Your task to perform on an android device: Go to display settings Image 0: 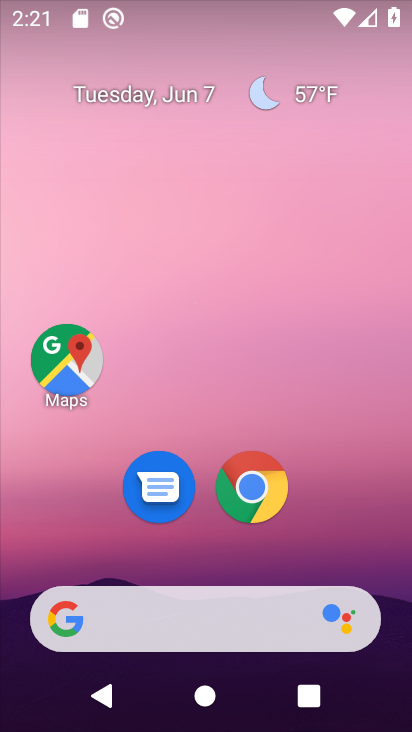
Step 0: drag from (253, 595) to (313, 346)
Your task to perform on an android device: Go to display settings Image 1: 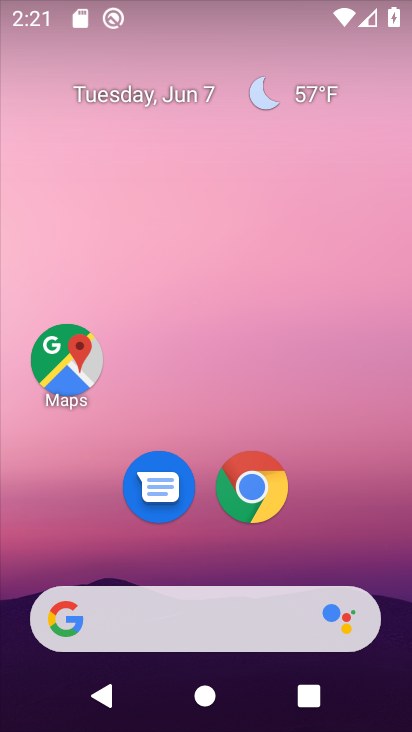
Step 1: drag from (231, 570) to (265, 17)
Your task to perform on an android device: Go to display settings Image 2: 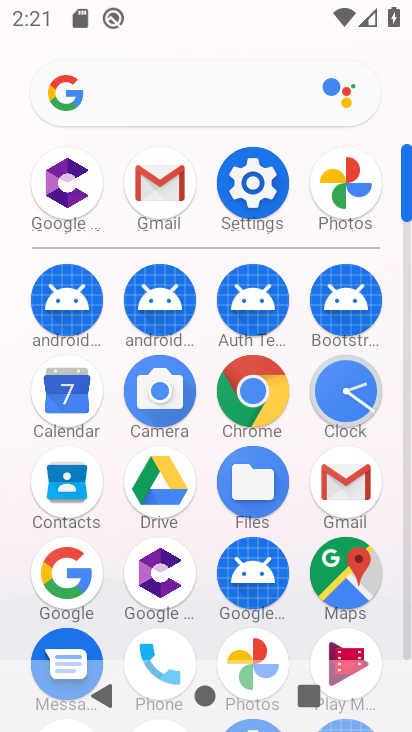
Step 2: click (253, 196)
Your task to perform on an android device: Go to display settings Image 3: 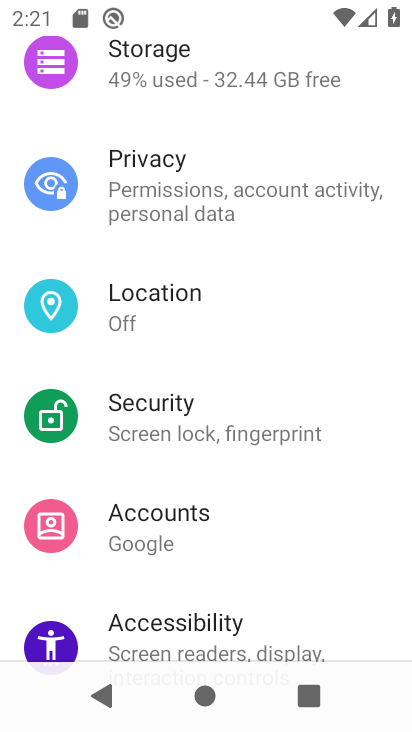
Step 3: drag from (168, 107) to (201, 449)
Your task to perform on an android device: Go to display settings Image 4: 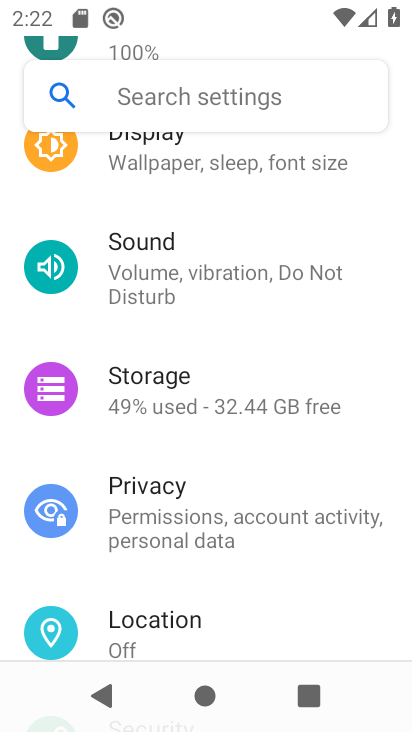
Step 4: click (149, 173)
Your task to perform on an android device: Go to display settings Image 5: 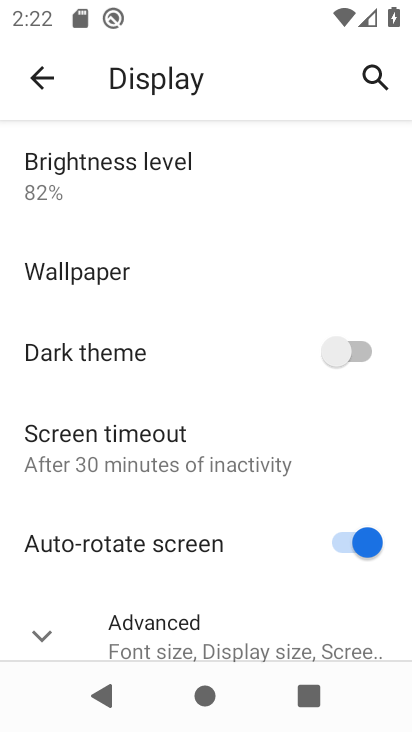
Step 5: task complete